Your task to perform on an android device: Search for a new blush Image 0: 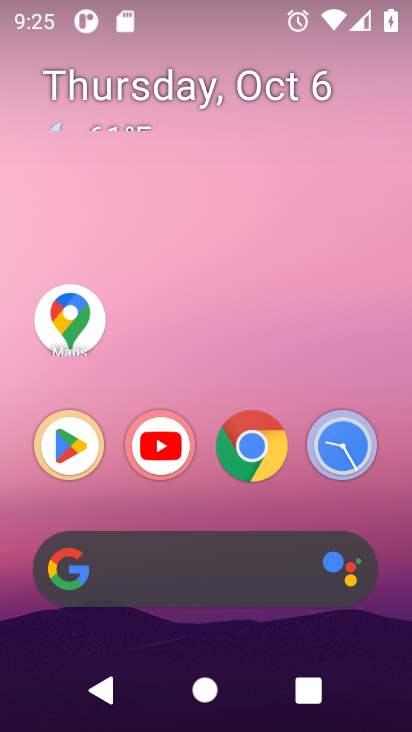
Step 0: click (255, 559)
Your task to perform on an android device: Search for a new blush Image 1: 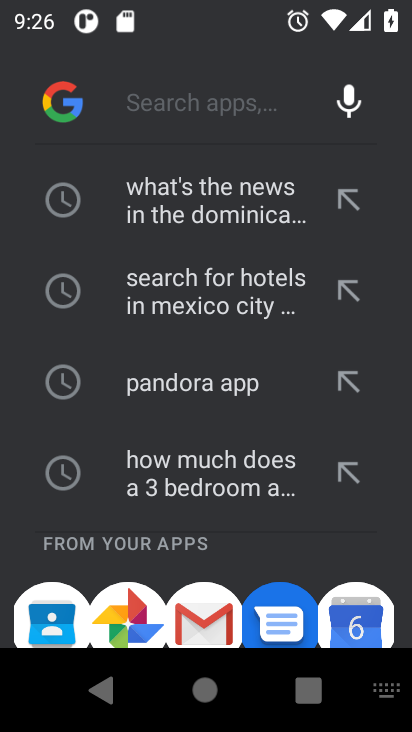
Step 1: type "Search for a new blush"
Your task to perform on an android device: Search for a new blush Image 2: 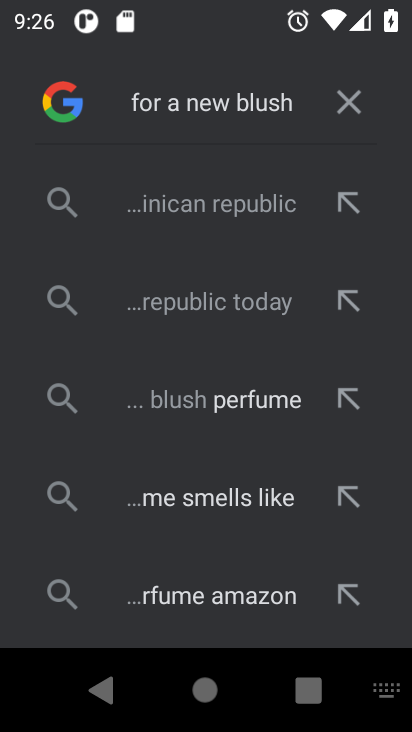
Step 2: click (223, 195)
Your task to perform on an android device: Search for a new blush Image 3: 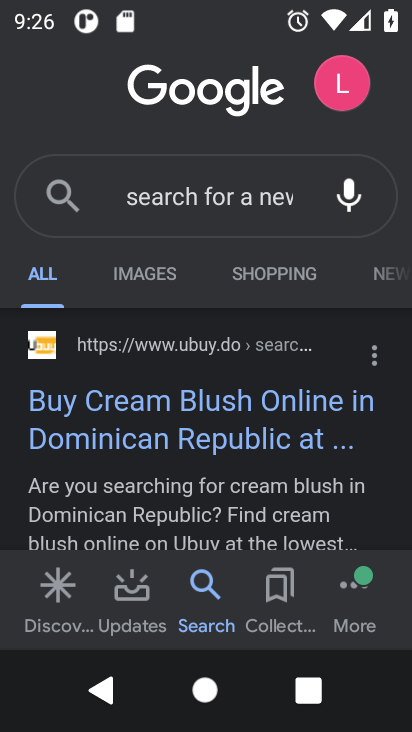
Step 3: click (209, 397)
Your task to perform on an android device: Search for a new blush Image 4: 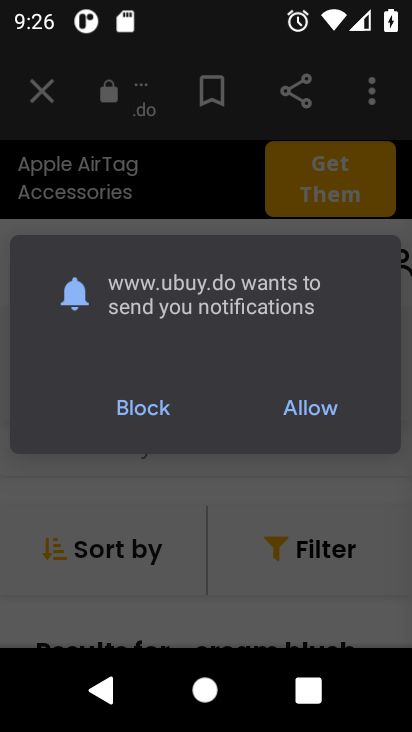
Step 4: click (138, 401)
Your task to perform on an android device: Search for a new blush Image 5: 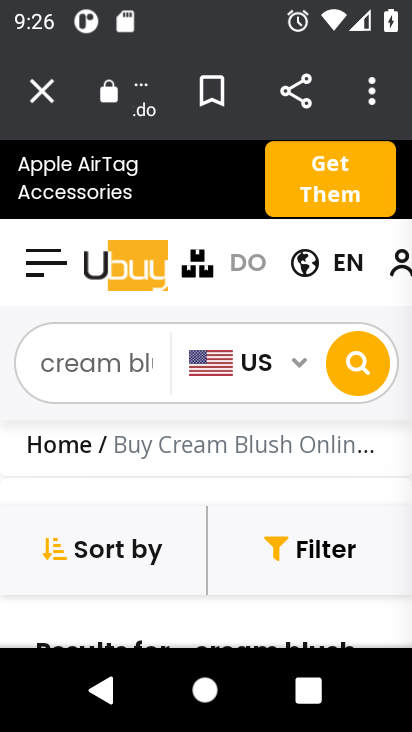
Step 5: task complete